Your task to perform on an android device: turn on bluetooth scan Image 0: 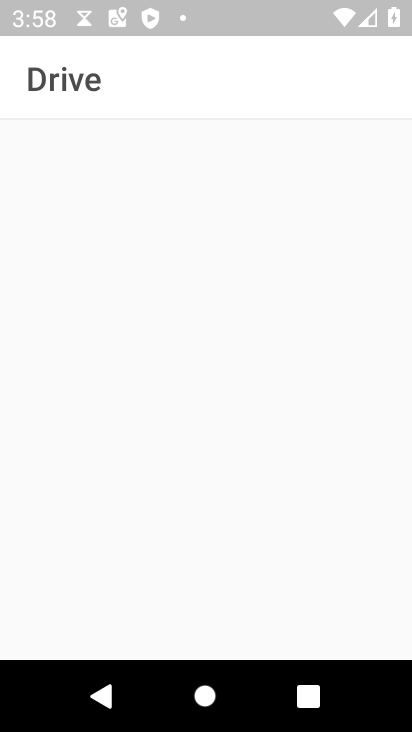
Step 0: press back button
Your task to perform on an android device: turn on bluetooth scan Image 1: 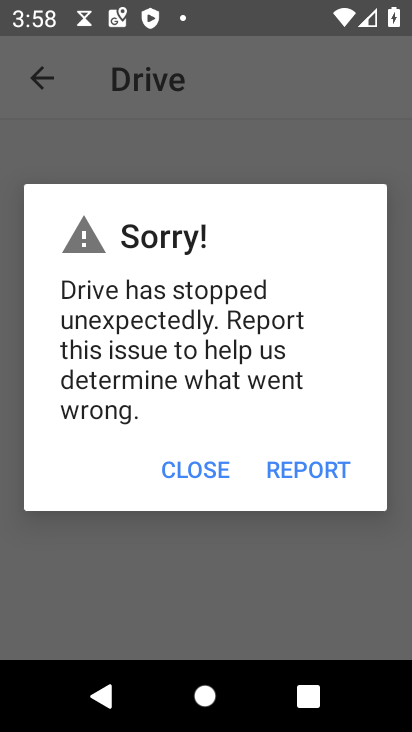
Step 1: press back button
Your task to perform on an android device: turn on bluetooth scan Image 2: 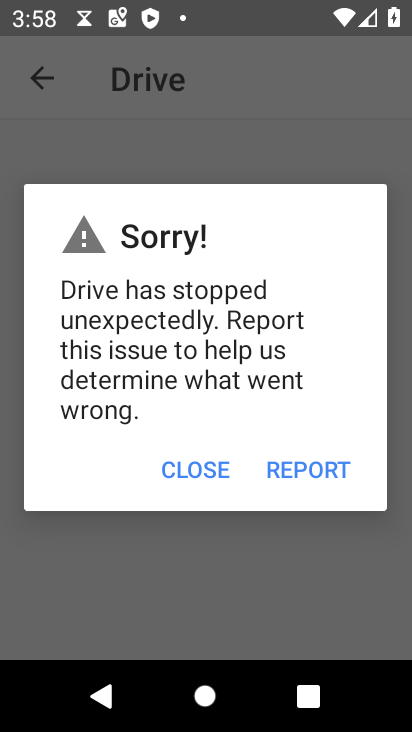
Step 2: press home button
Your task to perform on an android device: turn on bluetooth scan Image 3: 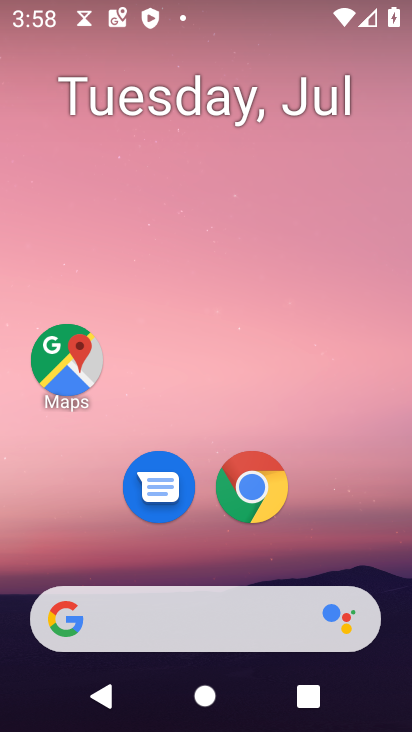
Step 3: drag from (204, 571) to (279, 0)
Your task to perform on an android device: turn on bluetooth scan Image 4: 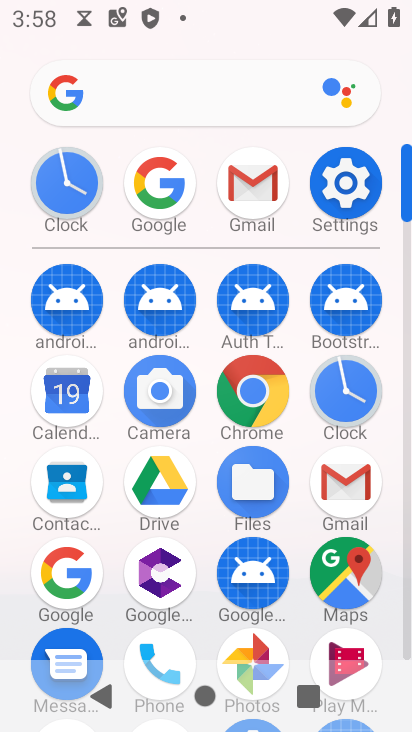
Step 4: click (339, 203)
Your task to perform on an android device: turn on bluetooth scan Image 5: 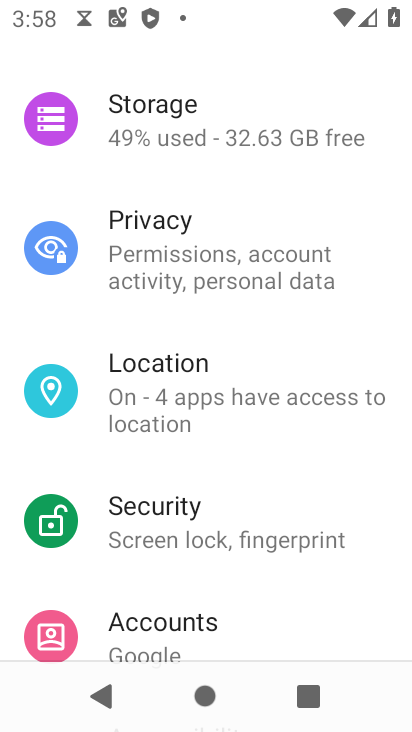
Step 5: drag from (255, 213) to (184, 731)
Your task to perform on an android device: turn on bluetooth scan Image 6: 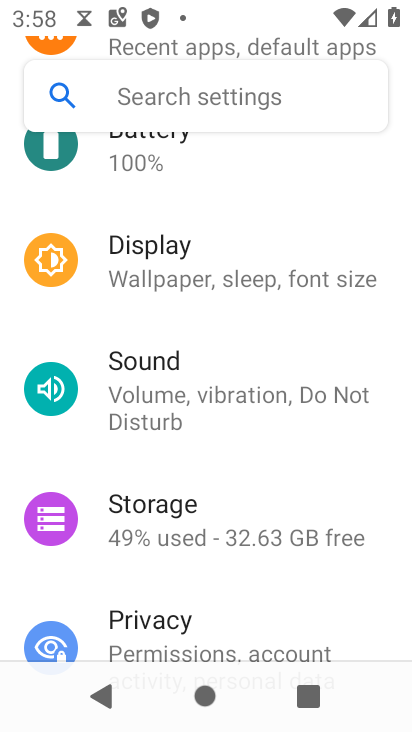
Step 6: drag from (186, 329) to (179, 691)
Your task to perform on an android device: turn on bluetooth scan Image 7: 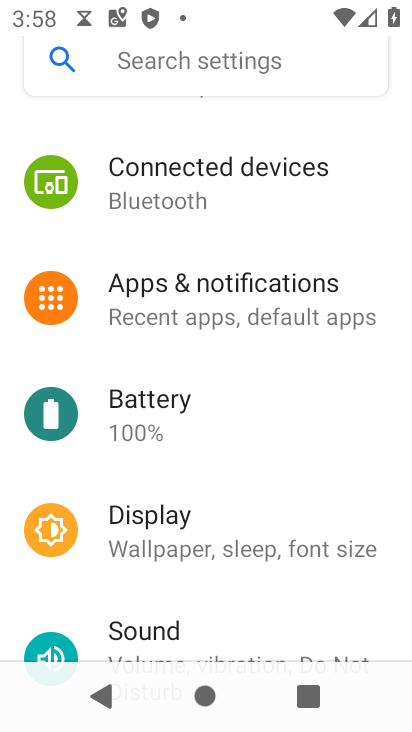
Step 7: click (173, 225)
Your task to perform on an android device: turn on bluetooth scan Image 8: 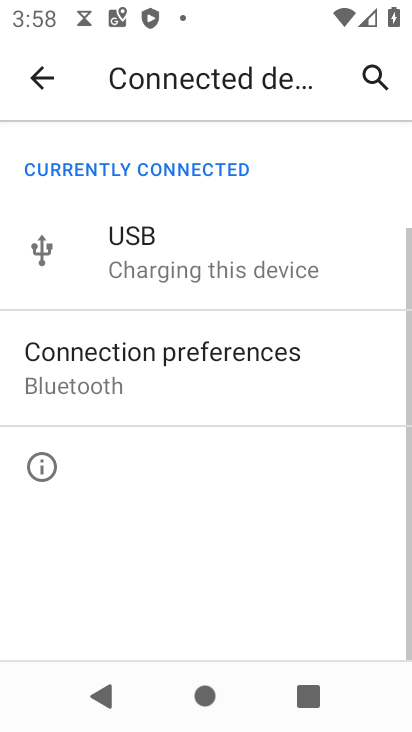
Step 8: click (119, 395)
Your task to perform on an android device: turn on bluetooth scan Image 9: 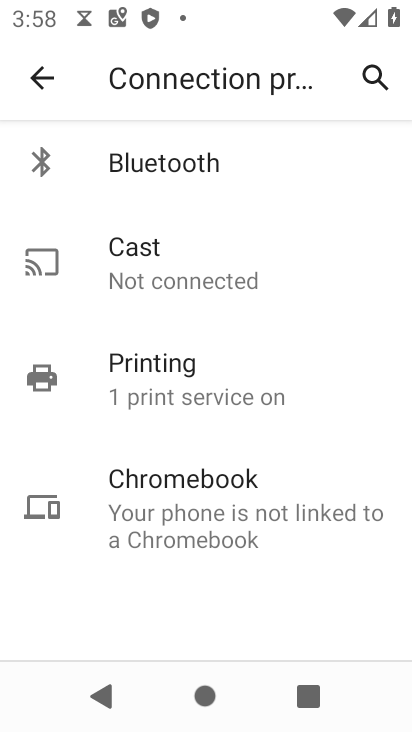
Step 9: click (158, 180)
Your task to perform on an android device: turn on bluetooth scan Image 10: 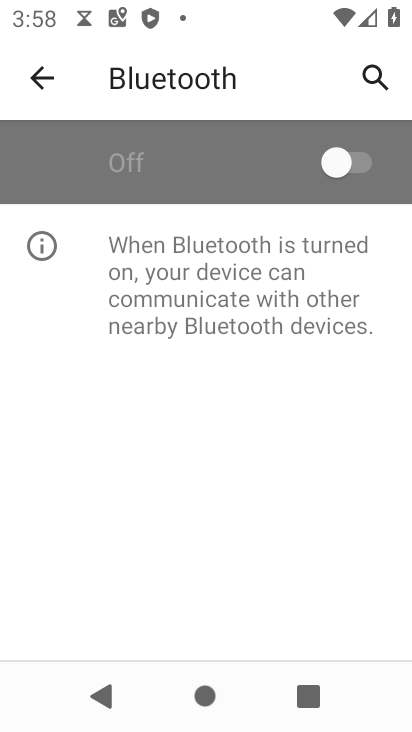
Step 10: click (349, 158)
Your task to perform on an android device: turn on bluetooth scan Image 11: 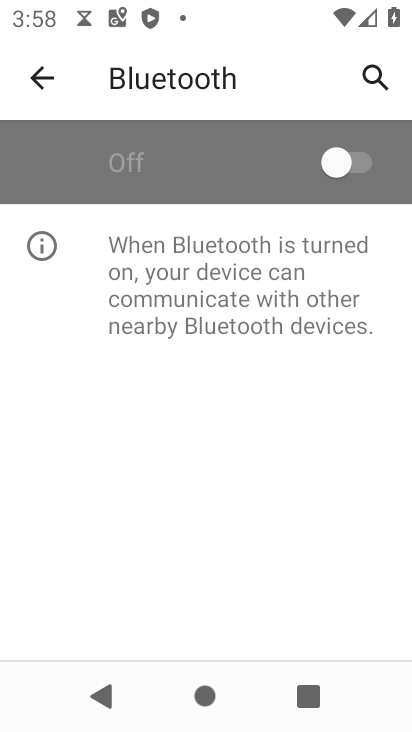
Step 11: task complete